Your task to perform on an android device: move a message to another label in the gmail app Image 0: 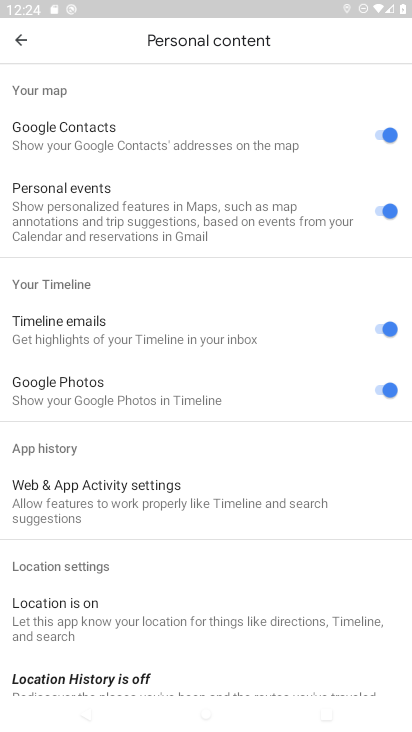
Step 0: press home button
Your task to perform on an android device: move a message to another label in the gmail app Image 1: 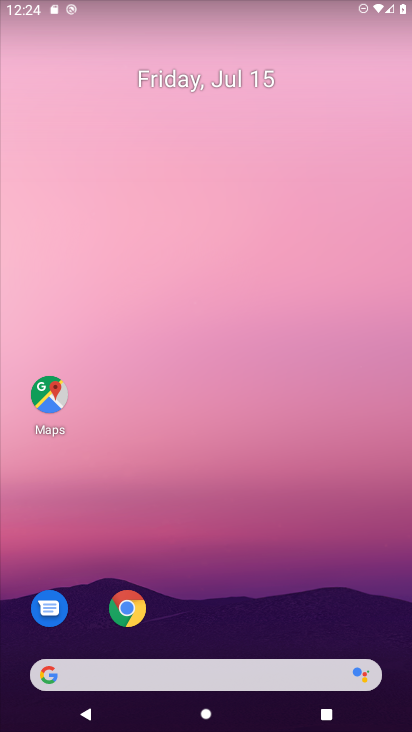
Step 1: drag from (349, 594) to (360, 65)
Your task to perform on an android device: move a message to another label in the gmail app Image 2: 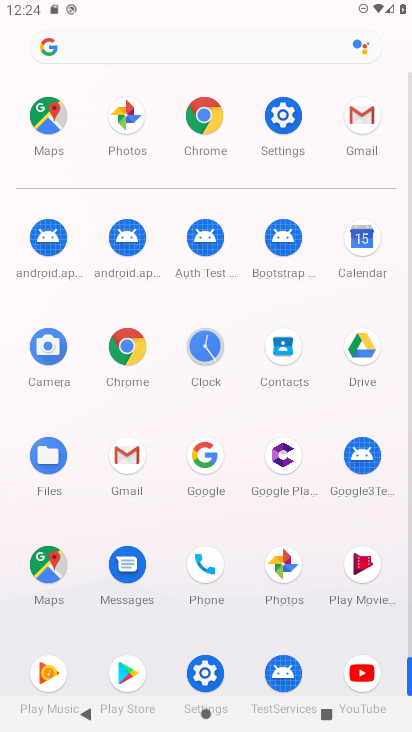
Step 2: click (119, 450)
Your task to perform on an android device: move a message to another label in the gmail app Image 3: 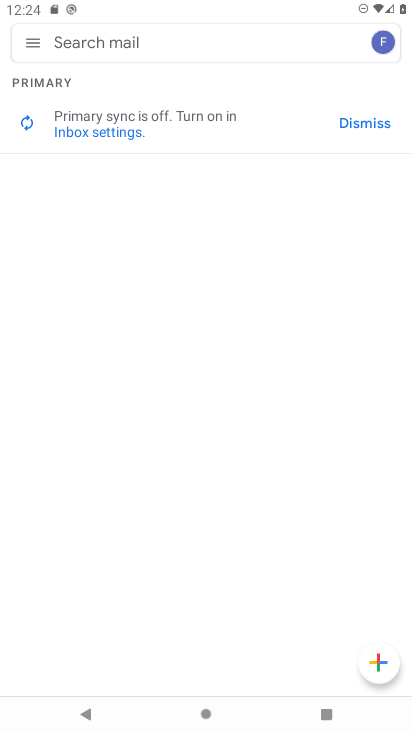
Step 3: click (41, 39)
Your task to perform on an android device: move a message to another label in the gmail app Image 4: 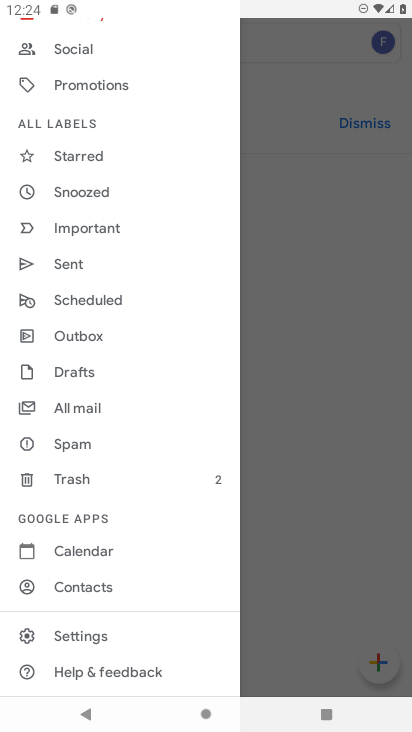
Step 4: click (312, 234)
Your task to perform on an android device: move a message to another label in the gmail app Image 5: 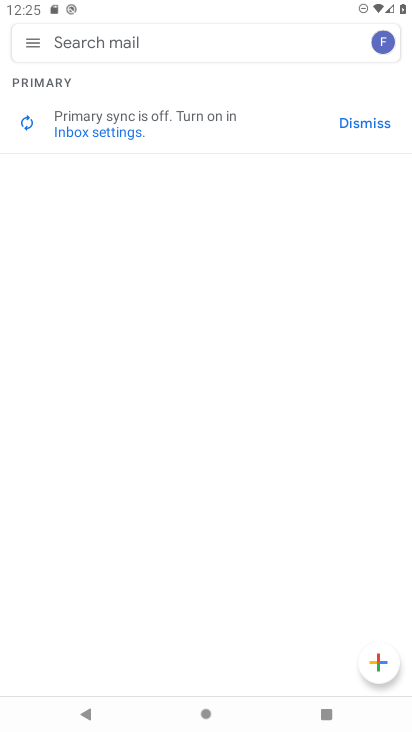
Step 5: task complete